Your task to perform on an android device: delete browsing data in the chrome app Image 0: 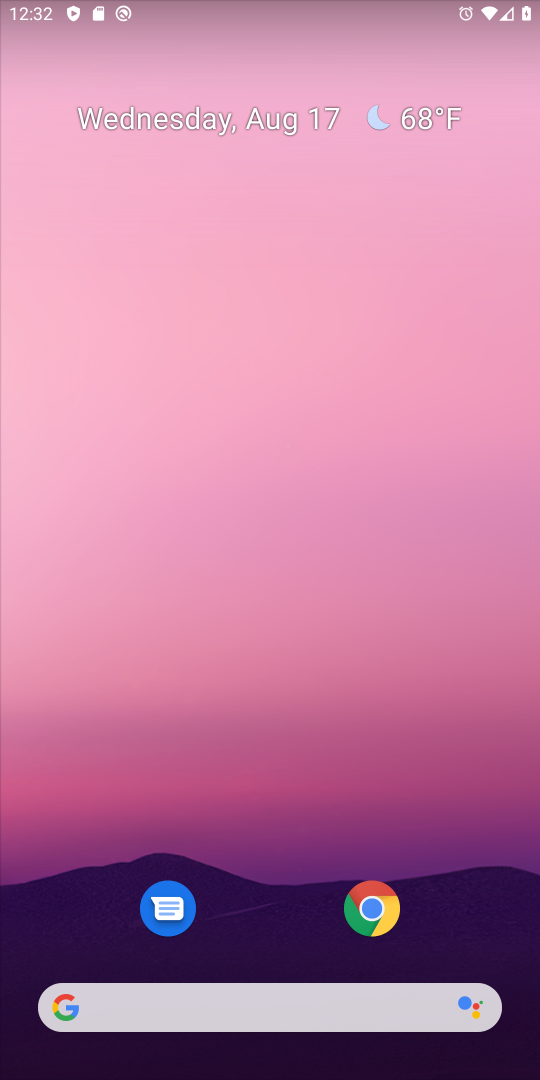
Step 0: click (392, 906)
Your task to perform on an android device: delete browsing data in the chrome app Image 1: 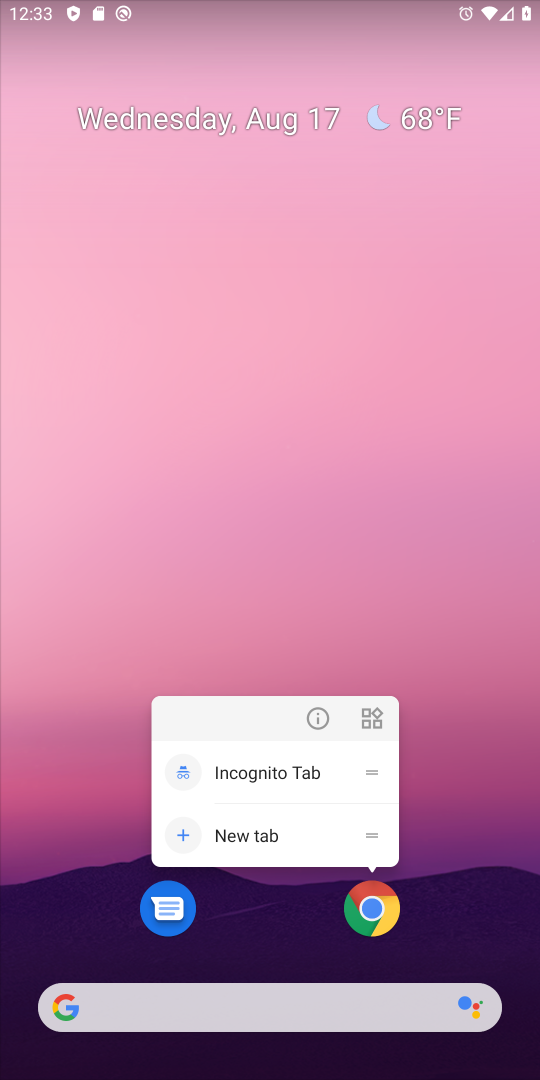
Step 1: click (392, 906)
Your task to perform on an android device: delete browsing data in the chrome app Image 2: 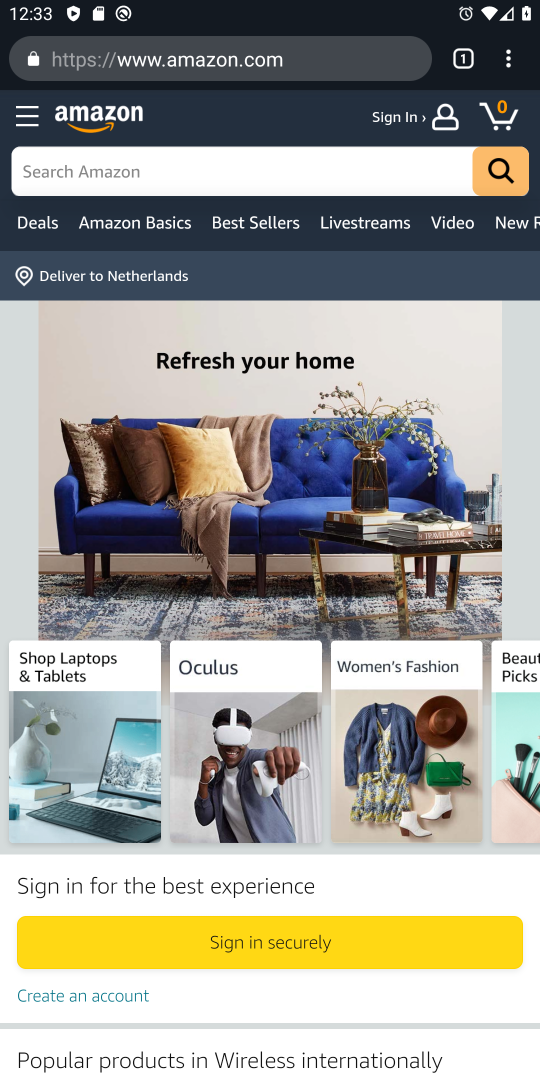
Step 2: click (506, 57)
Your task to perform on an android device: delete browsing data in the chrome app Image 3: 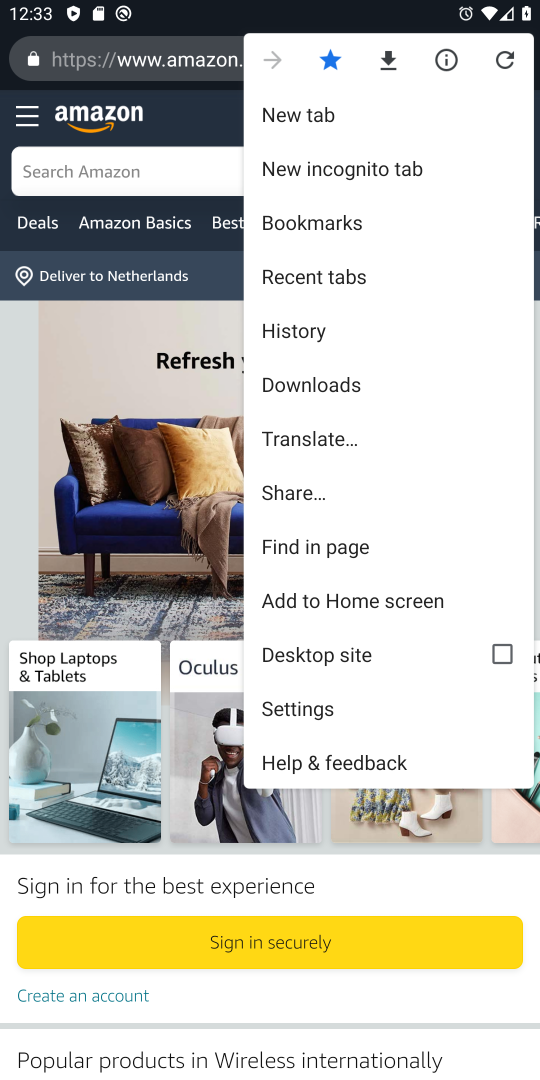
Step 3: click (300, 325)
Your task to perform on an android device: delete browsing data in the chrome app Image 4: 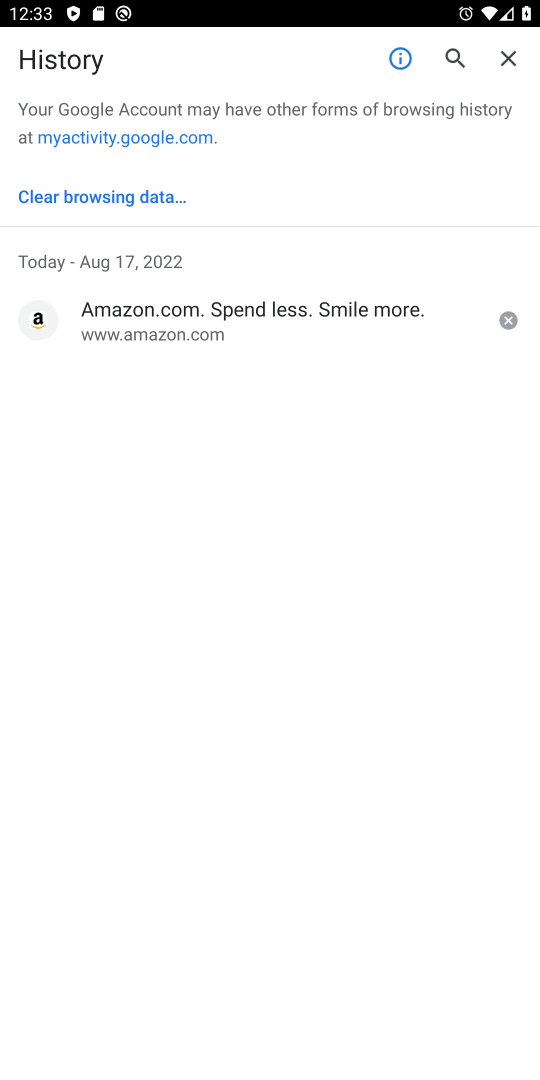
Step 4: click (143, 196)
Your task to perform on an android device: delete browsing data in the chrome app Image 5: 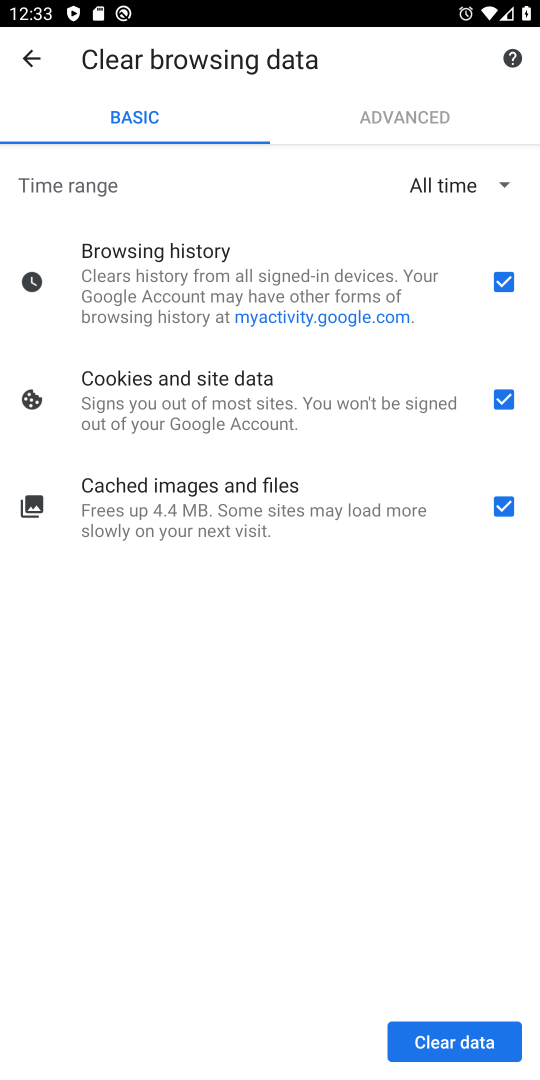
Step 5: click (467, 1036)
Your task to perform on an android device: delete browsing data in the chrome app Image 6: 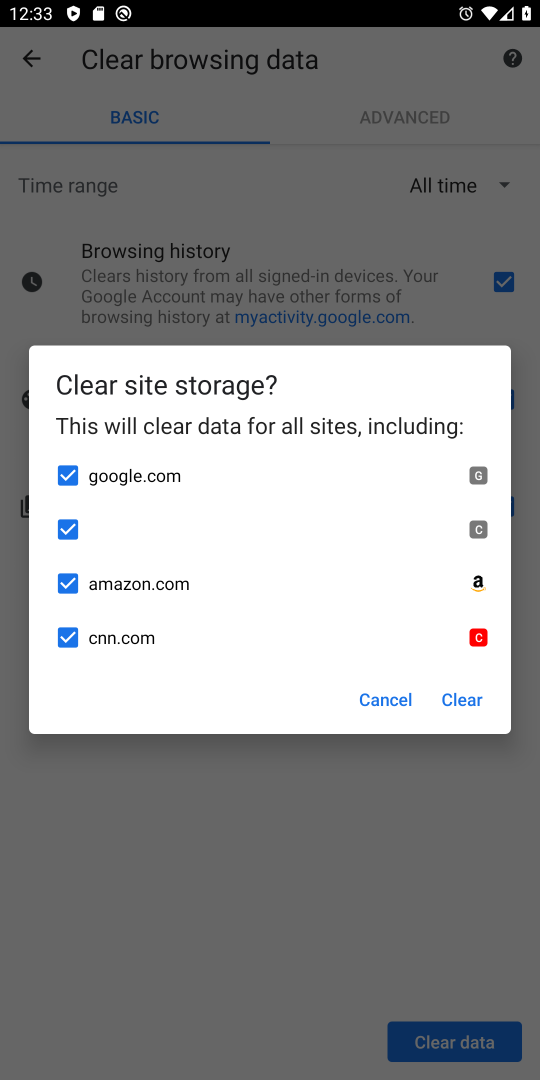
Step 6: click (464, 704)
Your task to perform on an android device: delete browsing data in the chrome app Image 7: 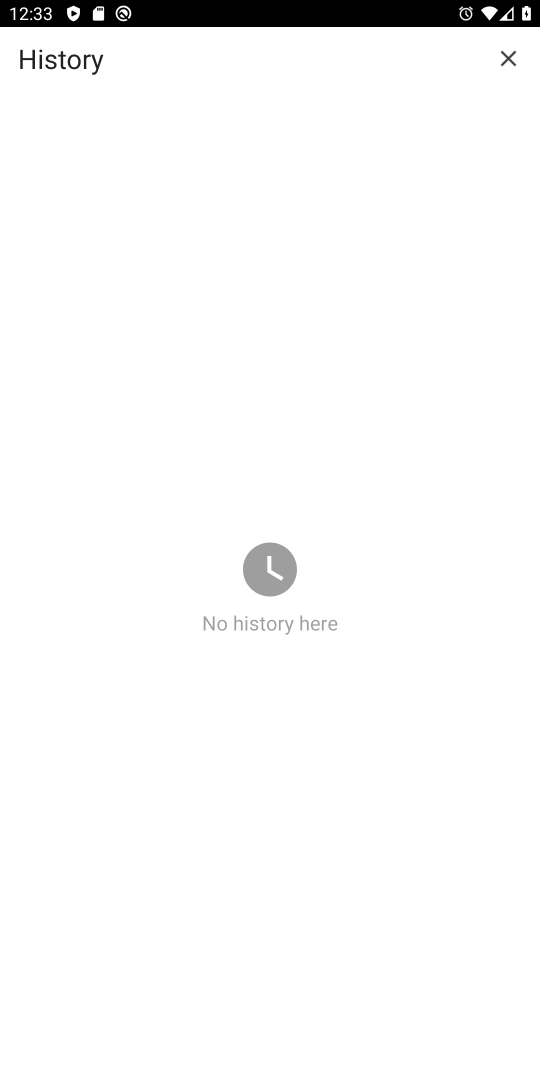
Step 7: task complete